Your task to perform on an android device: Open the phone app and click the voicemail tab. Image 0: 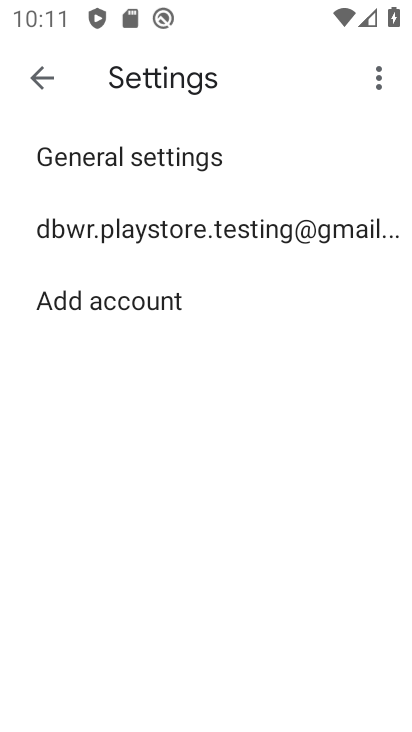
Step 0: press home button
Your task to perform on an android device: Open the phone app and click the voicemail tab. Image 1: 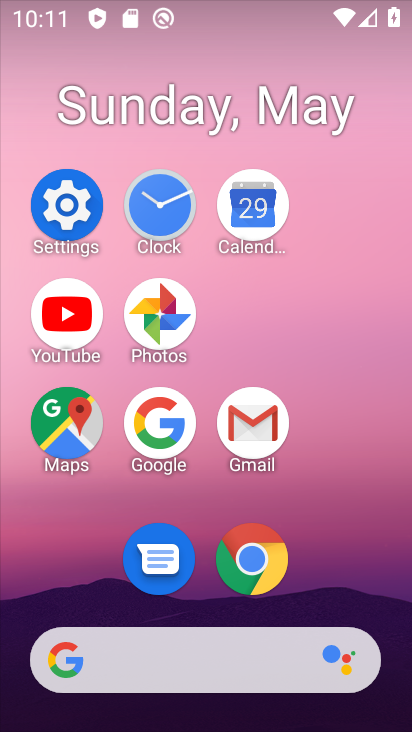
Step 1: drag from (331, 619) to (327, 222)
Your task to perform on an android device: Open the phone app and click the voicemail tab. Image 2: 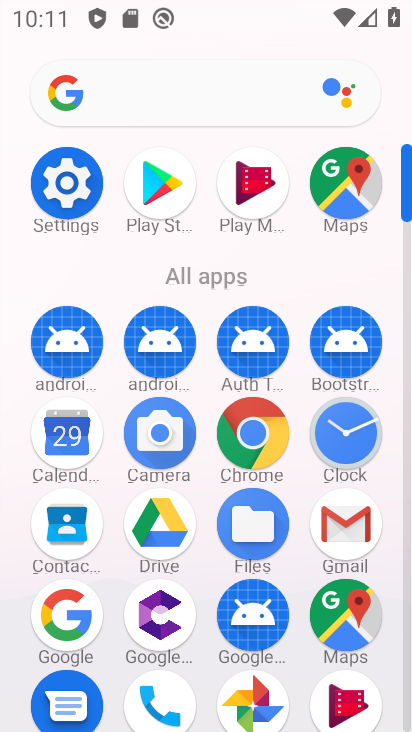
Step 2: click (136, 679)
Your task to perform on an android device: Open the phone app and click the voicemail tab. Image 3: 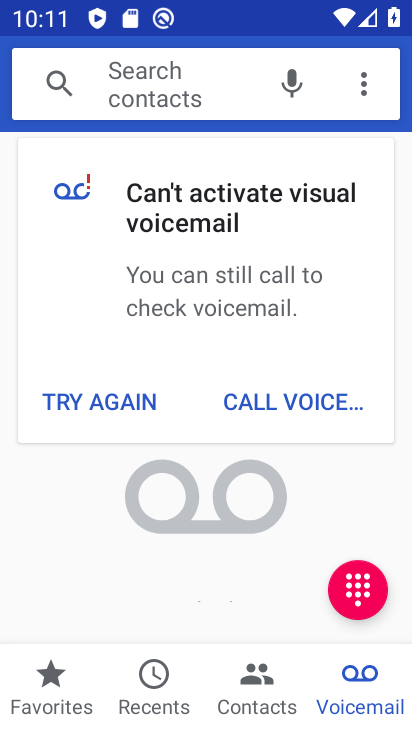
Step 3: click (353, 678)
Your task to perform on an android device: Open the phone app and click the voicemail tab. Image 4: 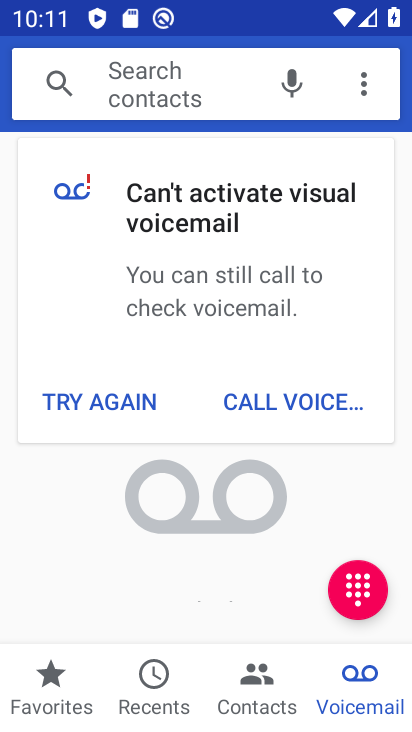
Step 4: task complete